Your task to perform on an android device: Search for vegetarian restaurants on Maps Image 0: 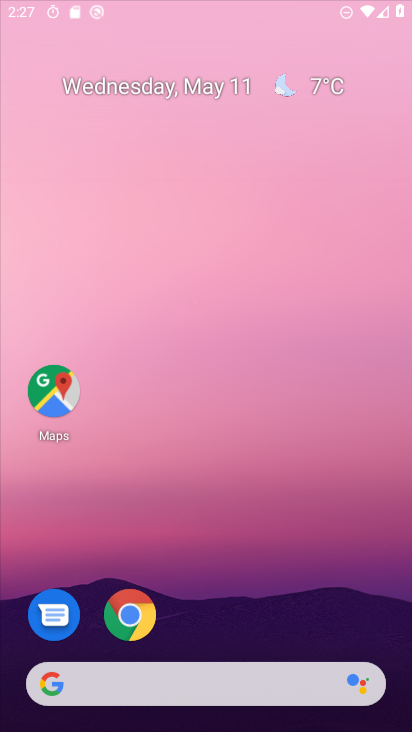
Step 0: click (275, 269)
Your task to perform on an android device: Search for vegetarian restaurants on Maps Image 1: 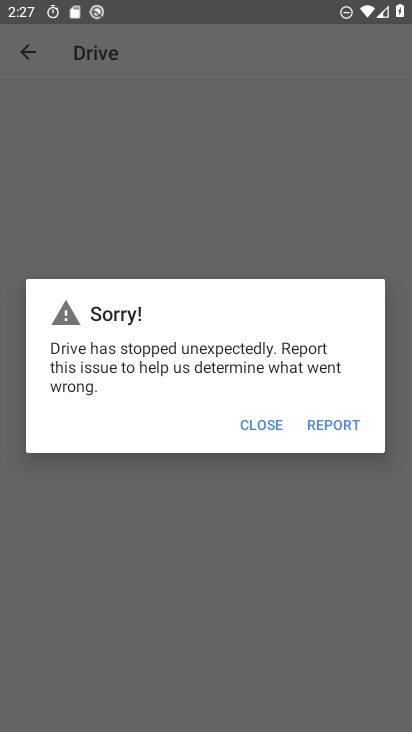
Step 1: press home button
Your task to perform on an android device: Search for vegetarian restaurants on Maps Image 2: 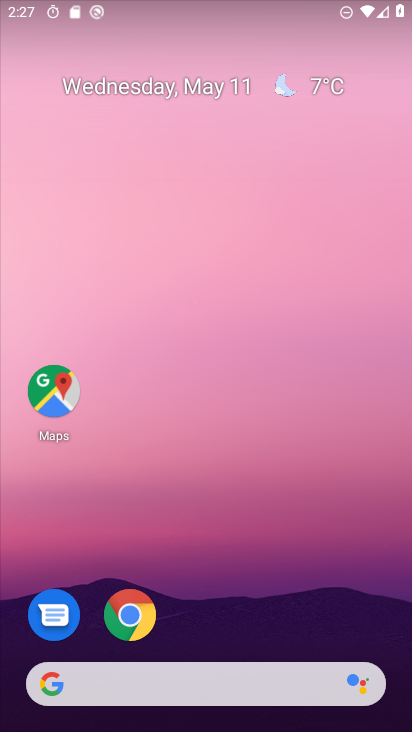
Step 2: drag from (210, 692) to (152, 238)
Your task to perform on an android device: Search for vegetarian restaurants on Maps Image 3: 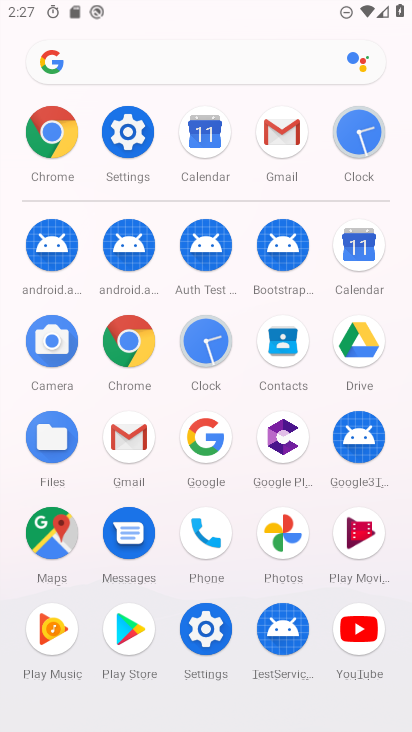
Step 3: click (48, 531)
Your task to perform on an android device: Search for vegetarian restaurants on Maps Image 4: 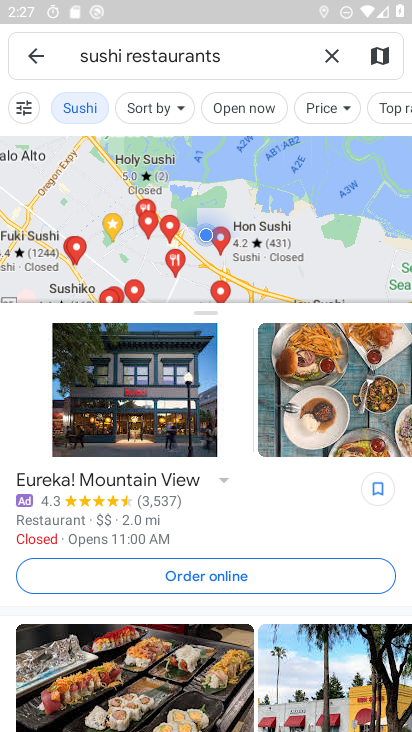
Step 4: click (334, 53)
Your task to perform on an android device: Search for vegetarian restaurants on Maps Image 5: 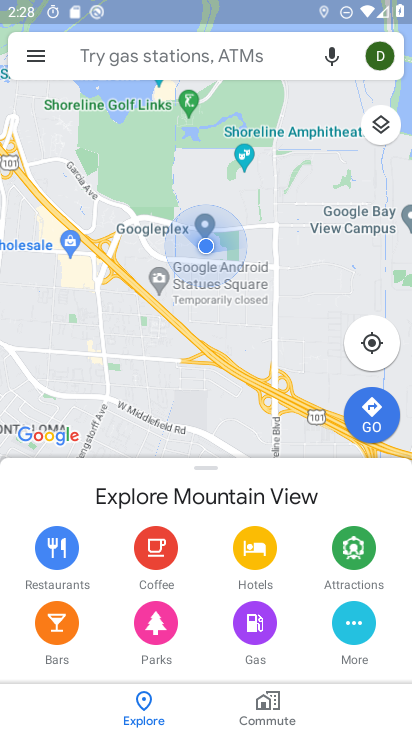
Step 5: click (182, 52)
Your task to perform on an android device: Search for vegetarian restaurants on Maps Image 6: 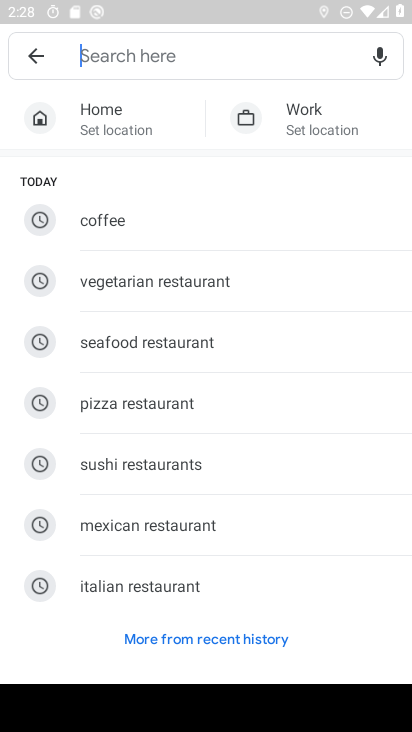
Step 6: click (149, 277)
Your task to perform on an android device: Search for vegetarian restaurants on Maps Image 7: 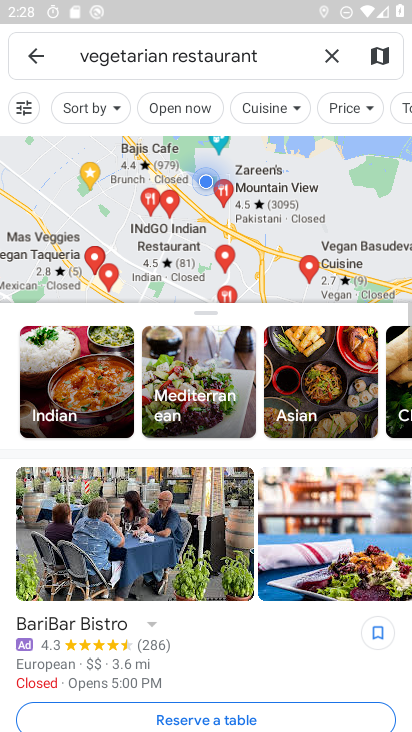
Step 7: task complete